Your task to perform on an android device: set the timer Image 0: 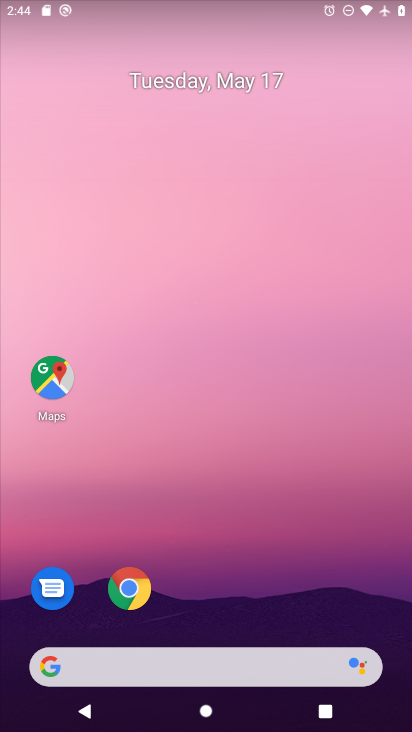
Step 0: drag from (193, 623) to (180, 143)
Your task to perform on an android device: set the timer Image 1: 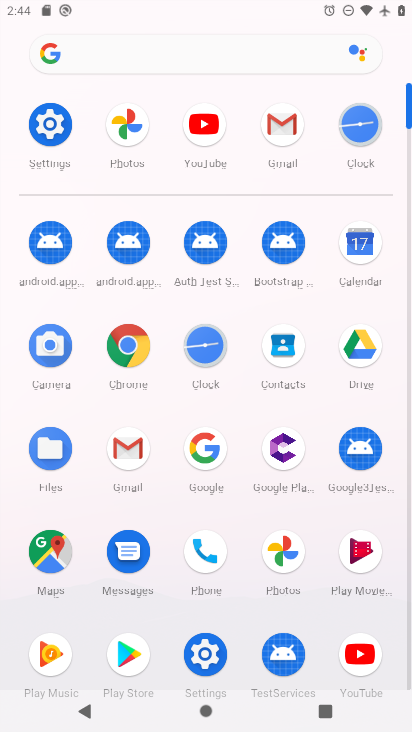
Step 1: click (347, 133)
Your task to perform on an android device: set the timer Image 2: 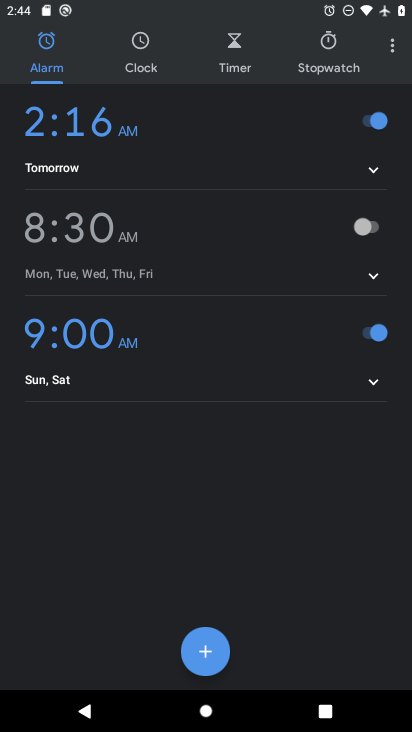
Step 2: click (234, 67)
Your task to perform on an android device: set the timer Image 3: 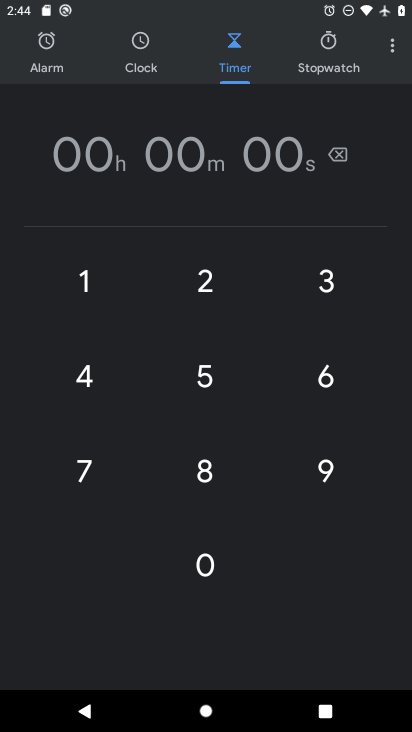
Step 3: click (82, 281)
Your task to perform on an android device: set the timer Image 4: 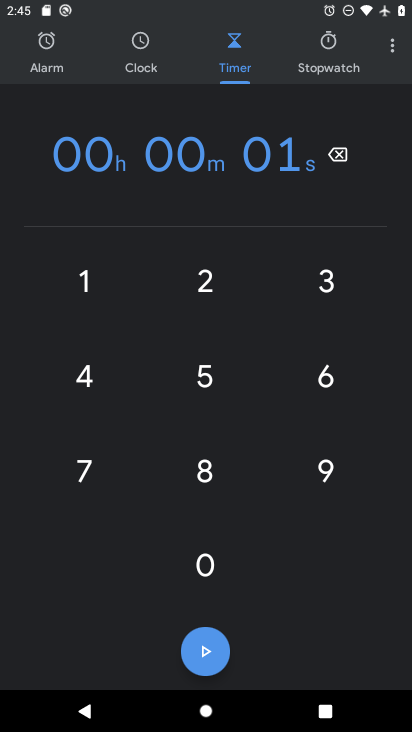
Step 4: click (214, 578)
Your task to perform on an android device: set the timer Image 5: 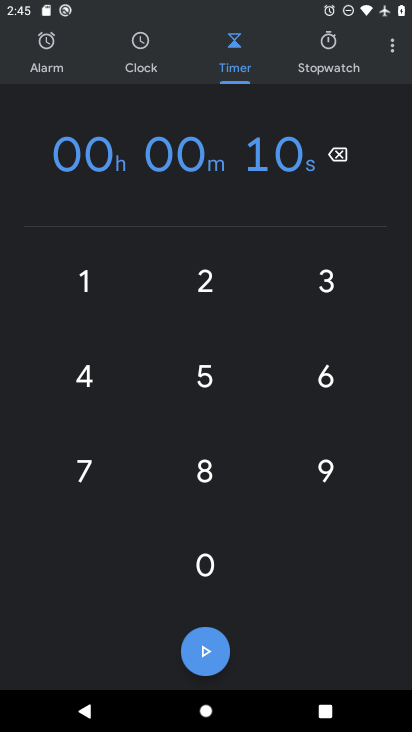
Step 5: click (214, 578)
Your task to perform on an android device: set the timer Image 6: 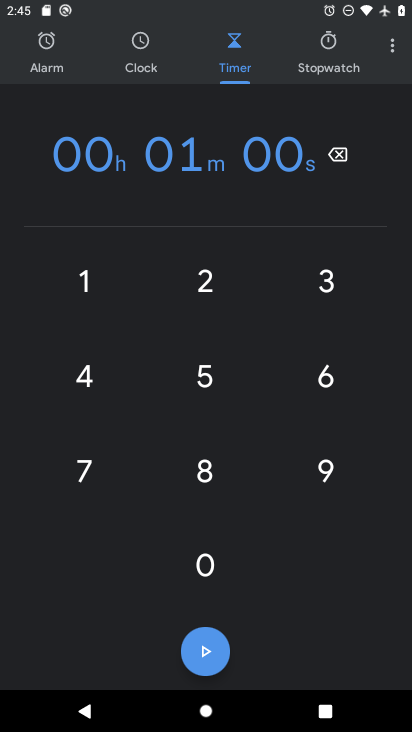
Step 6: click (214, 578)
Your task to perform on an android device: set the timer Image 7: 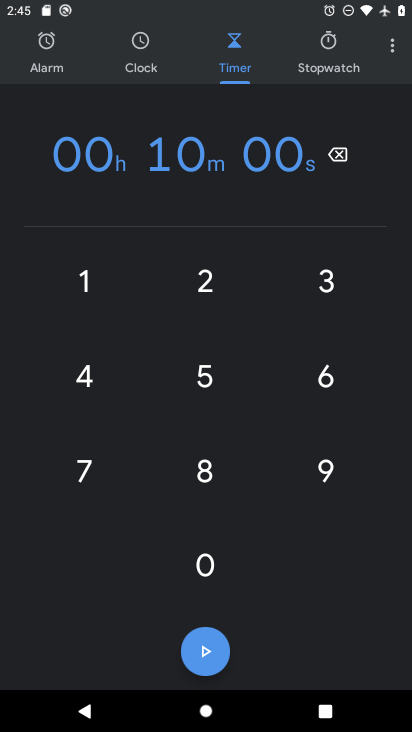
Step 7: click (214, 578)
Your task to perform on an android device: set the timer Image 8: 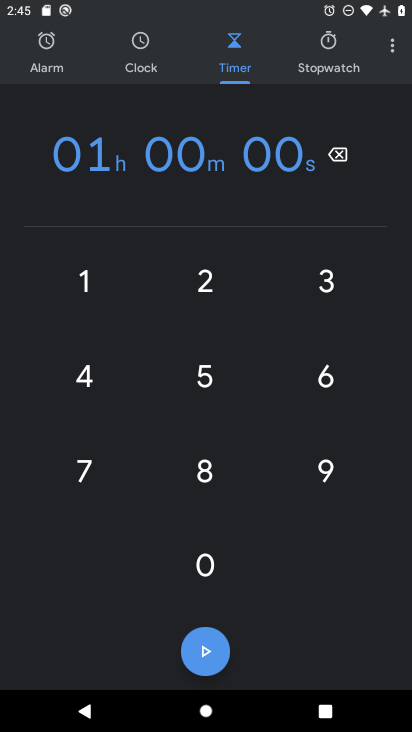
Step 8: click (221, 671)
Your task to perform on an android device: set the timer Image 9: 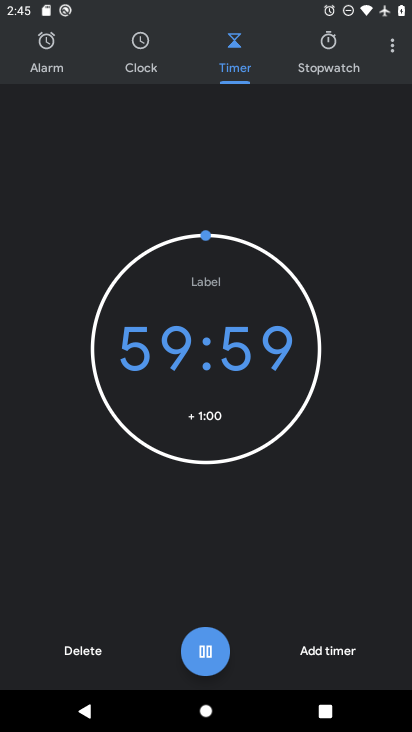
Step 9: click (346, 652)
Your task to perform on an android device: set the timer Image 10: 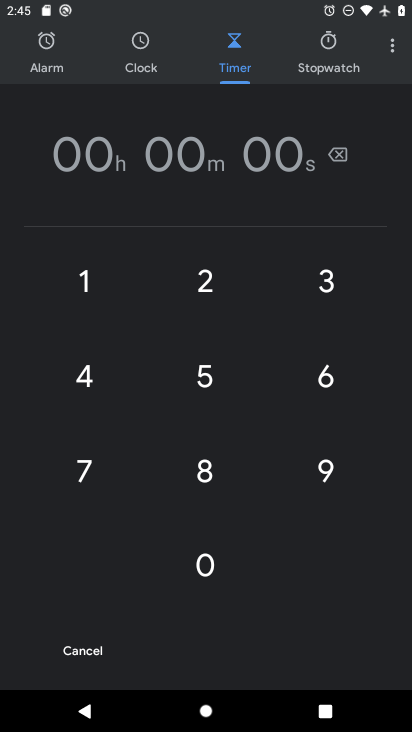
Step 10: task complete